Your task to perform on an android device: turn on location history Image 0: 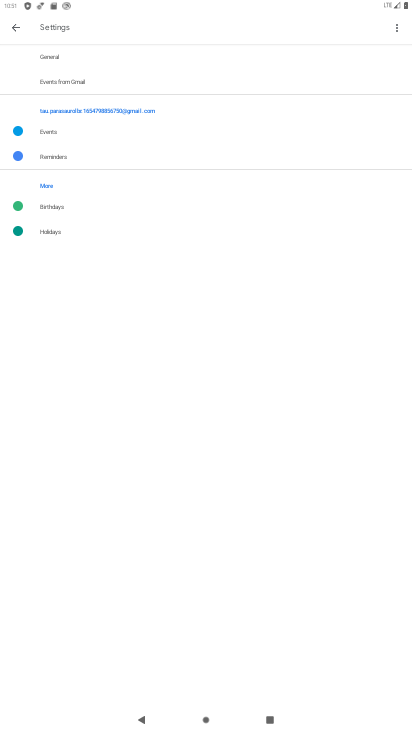
Step 0: press home button
Your task to perform on an android device: turn on location history Image 1: 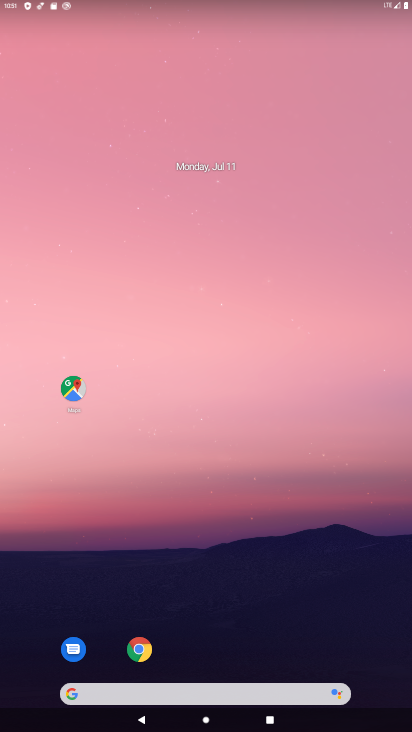
Step 1: drag from (290, 606) to (182, 75)
Your task to perform on an android device: turn on location history Image 2: 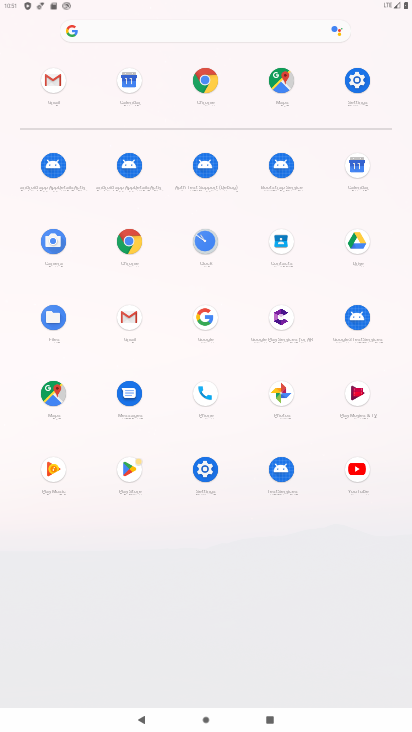
Step 2: click (360, 79)
Your task to perform on an android device: turn on location history Image 3: 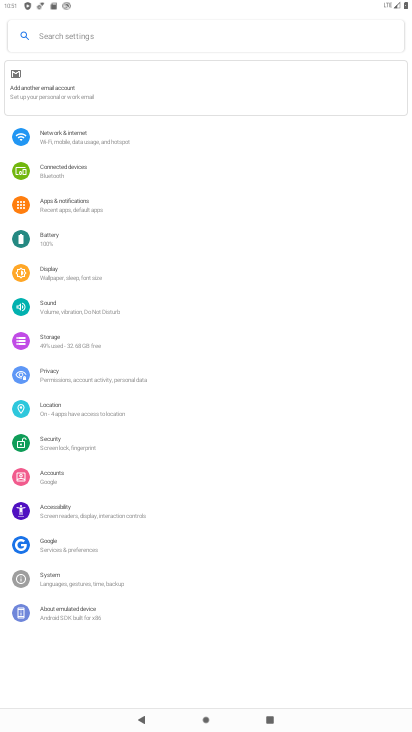
Step 3: click (71, 412)
Your task to perform on an android device: turn on location history Image 4: 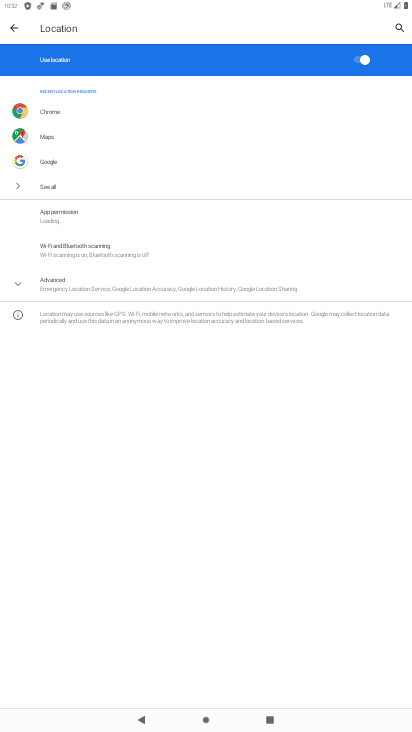
Step 4: click (107, 290)
Your task to perform on an android device: turn on location history Image 5: 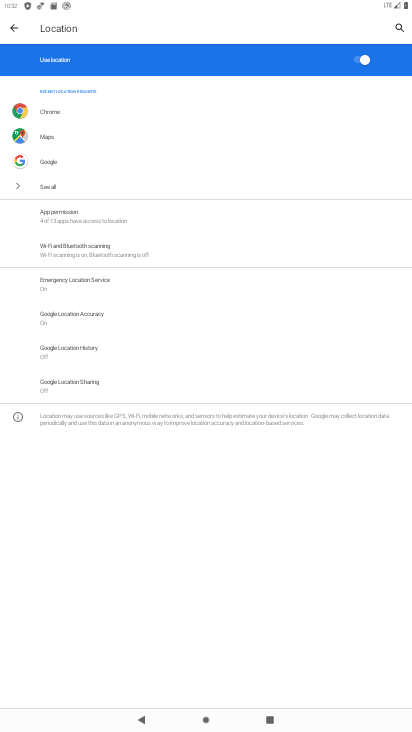
Step 5: click (84, 349)
Your task to perform on an android device: turn on location history Image 6: 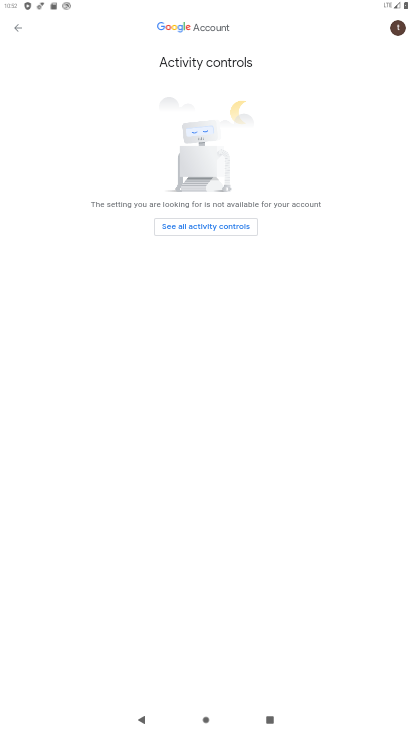
Step 6: task complete